Your task to perform on an android device: turn pop-ups off in chrome Image 0: 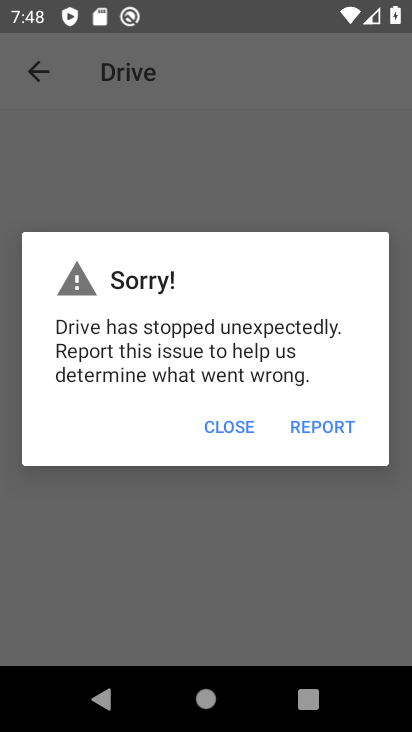
Step 0: click (235, 422)
Your task to perform on an android device: turn pop-ups off in chrome Image 1: 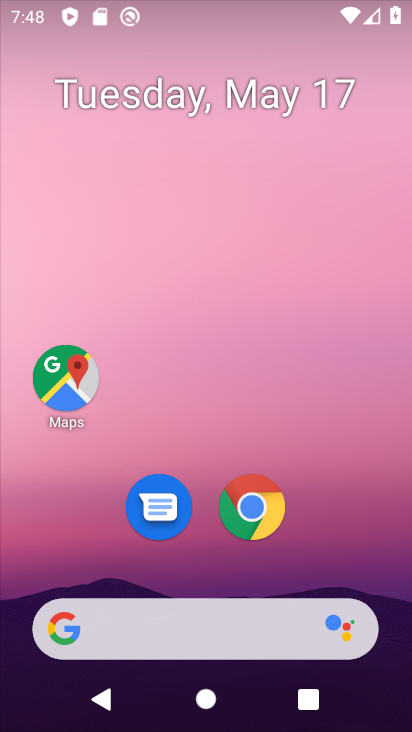
Step 1: drag from (280, 675) to (190, 34)
Your task to perform on an android device: turn pop-ups off in chrome Image 2: 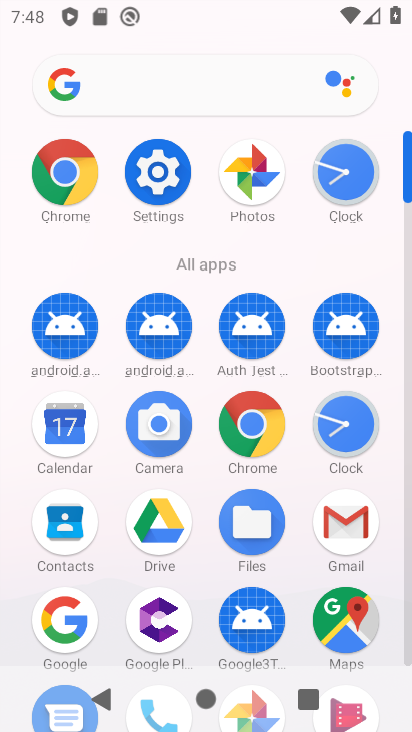
Step 2: click (69, 174)
Your task to perform on an android device: turn pop-ups off in chrome Image 3: 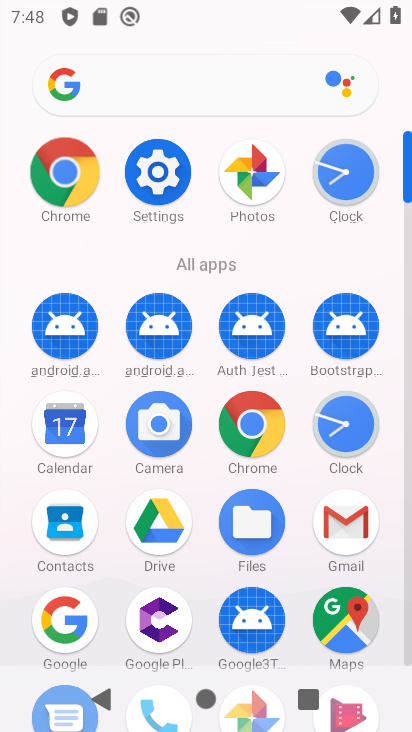
Step 3: click (69, 174)
Your task to perform on an android device: turn pop-ups off in chrome Image 4: 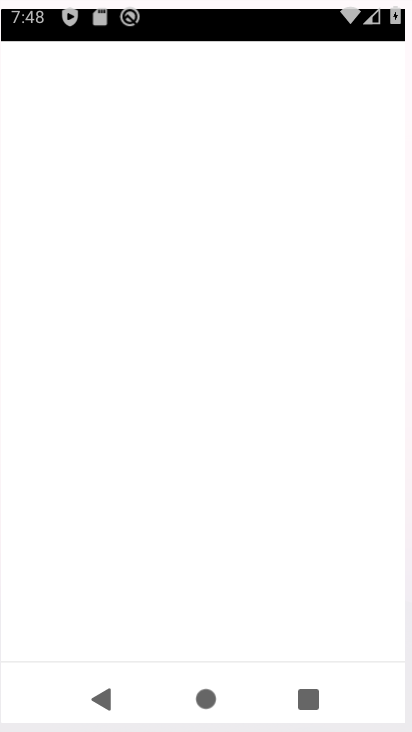
Step 4: click (69, 174)
Your task to perform on an android device: turn pop-ups off in chrome Image 5: 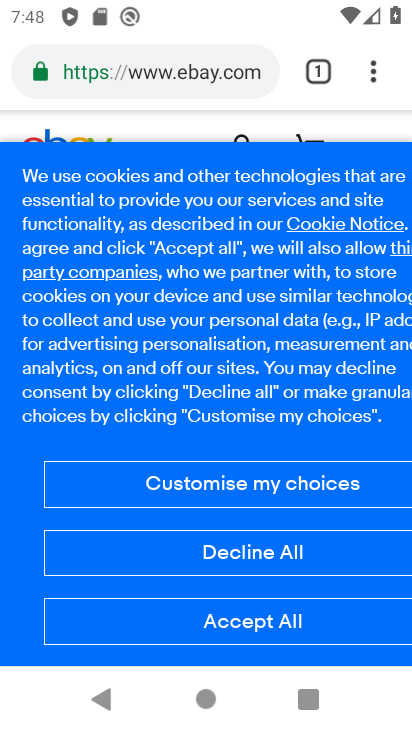
Step 5: click (363, 74)
Your task to perform on an android device: turn pop-ups off in chrome Image 6: 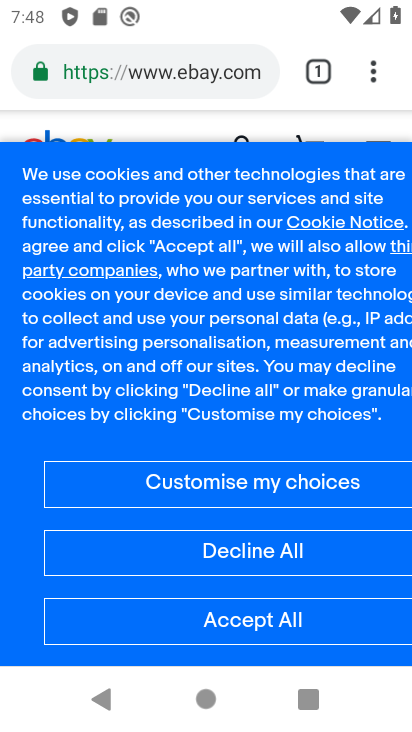
Step 6: drag from (375, 72) to (112, 497)
Your task to perform on an android device: turn pop-ups off in chrome Image 7: 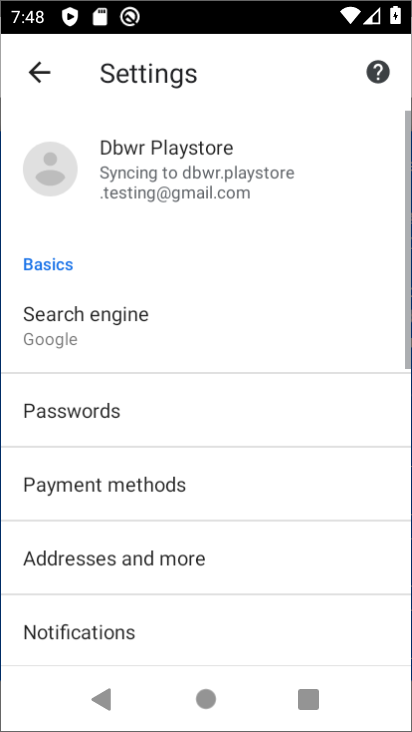
Step 7: click (112, 497)
Your task to perform on an android device: turn pop-ups off in chrome Image 8: 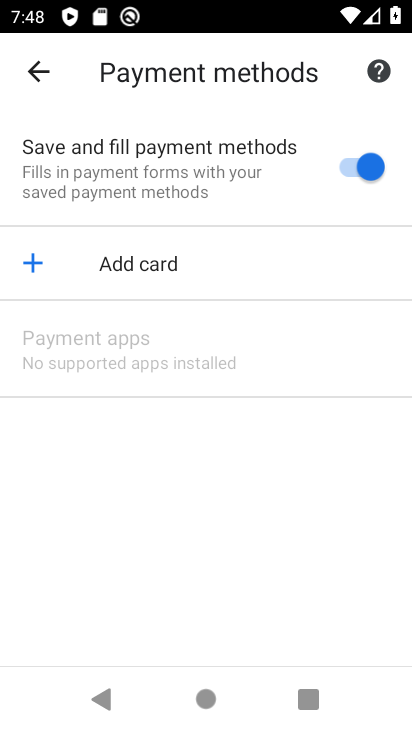
Step 8: click (34, 69)
Your task to perform on an android device: turn pop-ups off in chrome Image 9: 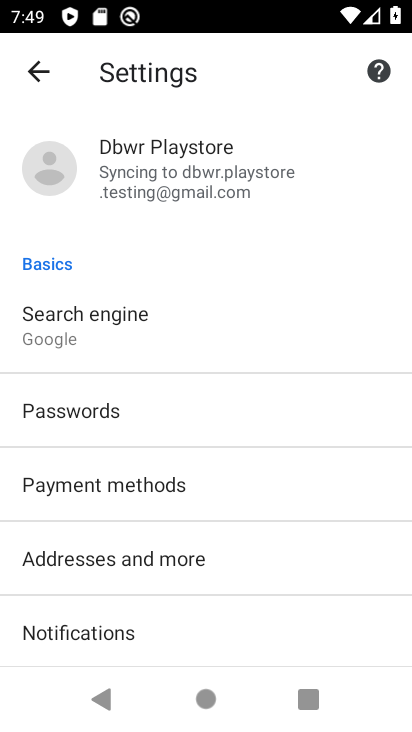
Step 9: drag from (104, 463) to (44, 102)
Your task to perform on an android device: turn pop-ups off in chrome Image 10: 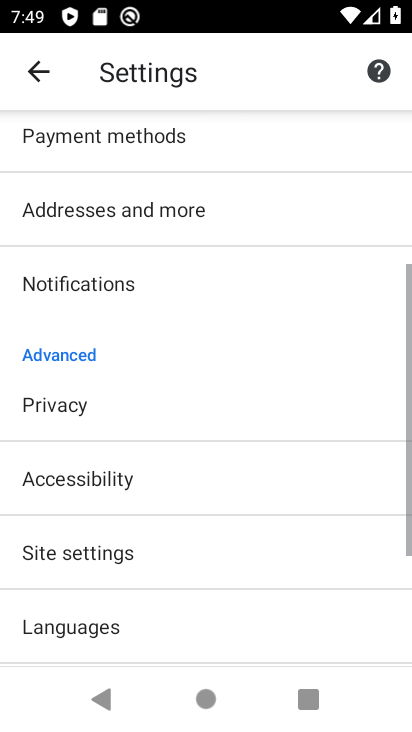
Step 10: drag from (125, 414) to (158, 62)
Your task to perform on an android device: turn pop-ups off in chrome Image 11: 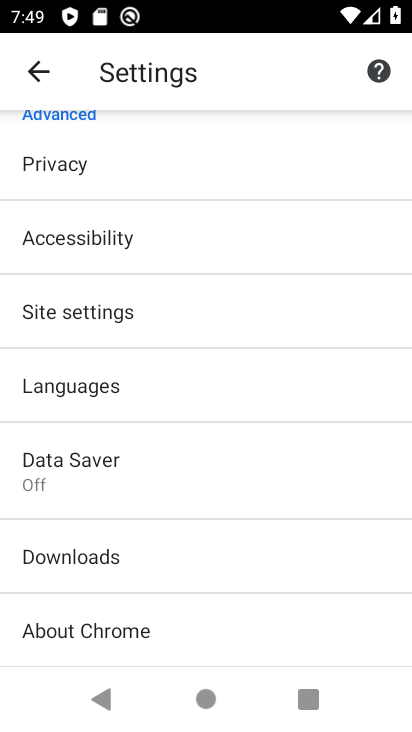
Step 11: click (68, 311)
Your task to perform on an android device: turn pop-ups off in chrome Image 12: 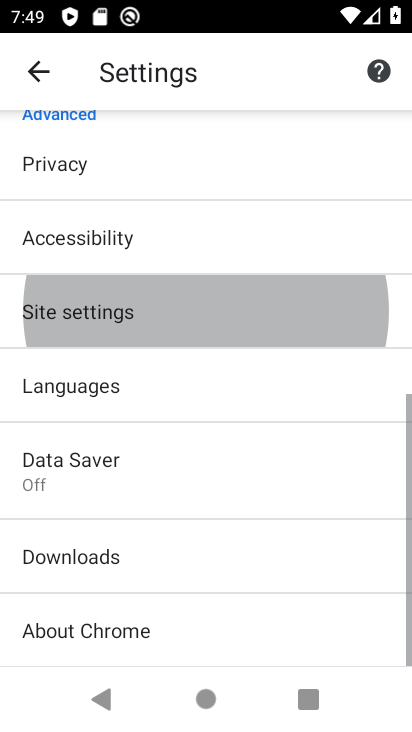
Step 12: click (72, 303)
Your task to perform on an android device: turn pop-ups off in chrome Image 13: 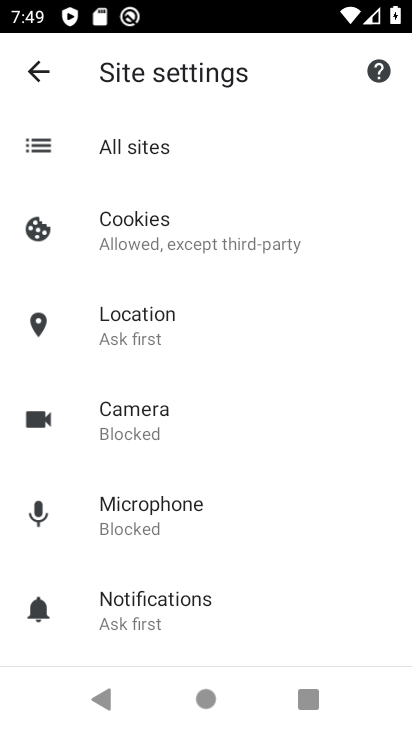
Step 13: click (112, 278)
Your task to perform on an android device: turn pop-ups off in chrome Image 14: 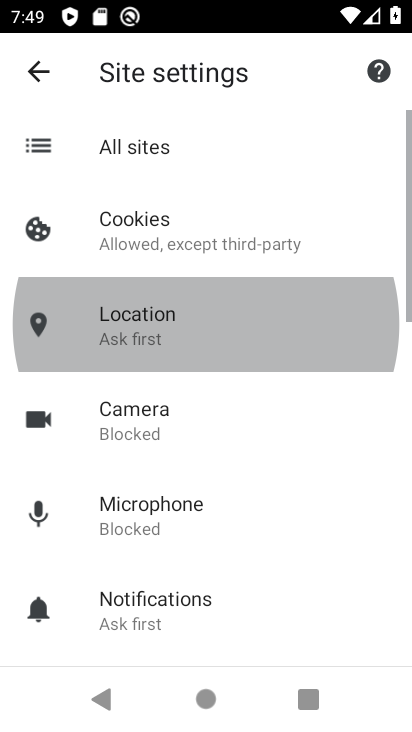
Step 14: drag from (123, 416) to (121, 66)
Your task to perform on an android device: turn pop-ups off in chrome Image 15: 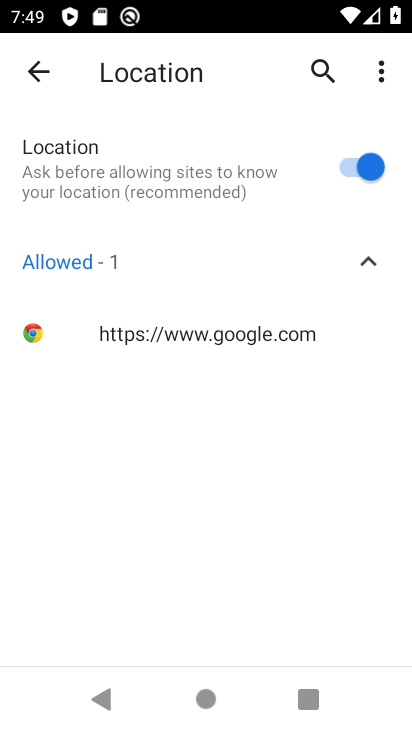
Step 15: drag from (184, 347) to (143, 154)
Your task to perform on an android device: turn pop-ups off in chrome Image 16: 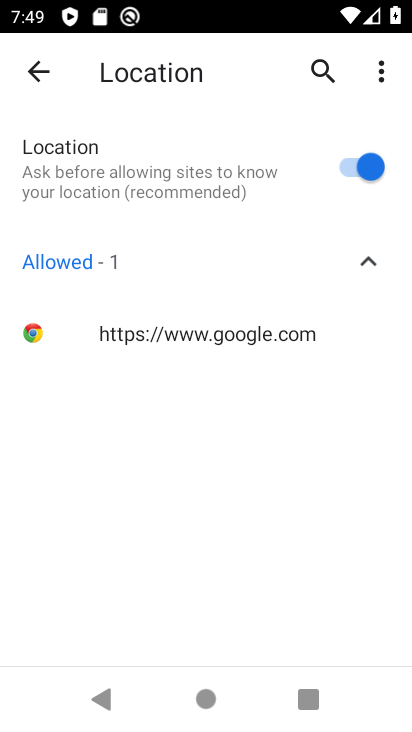
Step 16: click (36, 77)
Your task to perform on an android device: turn pop-ups off in chrome Image 17: 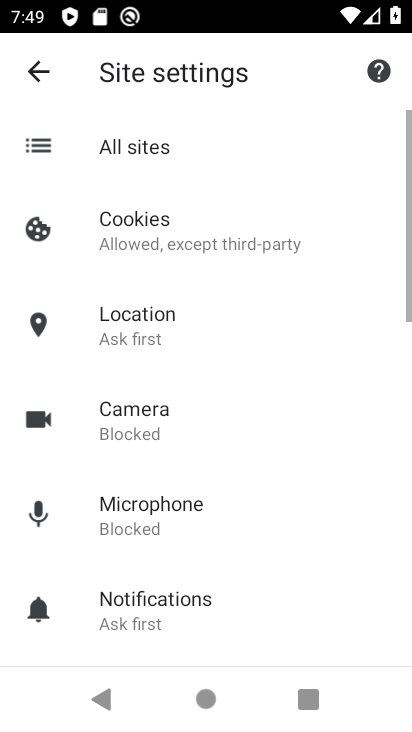
Step 17: drag from (217, 554) to (242, 1)
Your task to perform on an android device: turn pop-ups off in chrome Image 18: 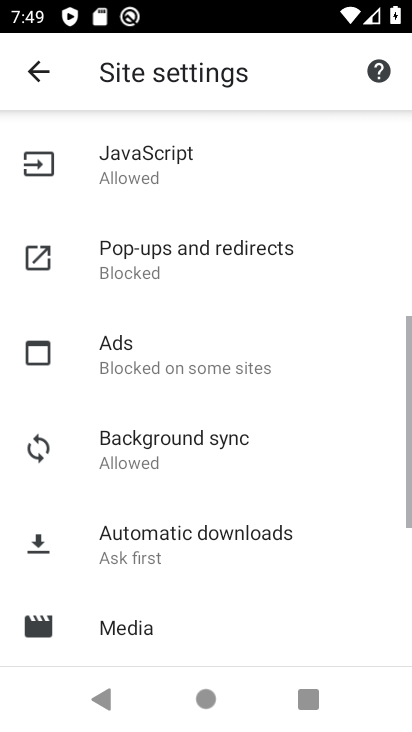
Step 18: drag from (218, 220) to (213, 2)
Your task to perform on an android device: turn pop-ups off in chrome Image 19: 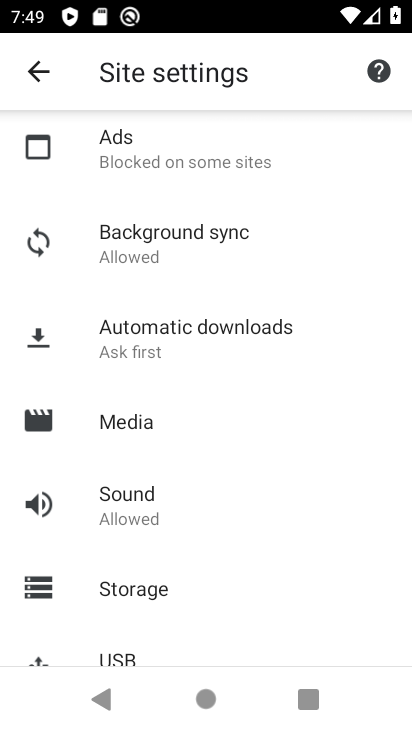
Step 19: drag from (137, 200) to (215, 715)
Your task to perform on an android device: turn pop-ups off in chrome Image 20: 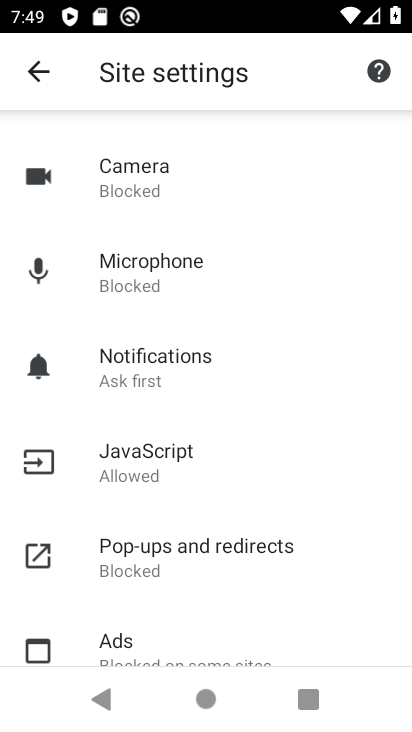
Step 20: click (156, 545)
Your task to perform on an android device: turn pop-ups off in chrome Image 21: 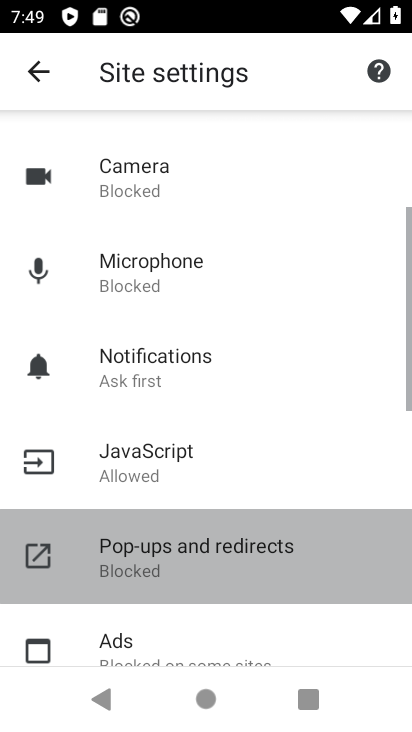
Step 21: click (158, 545)
Your task to perform on an android device: turn pop-ups off in chrome Image 22: 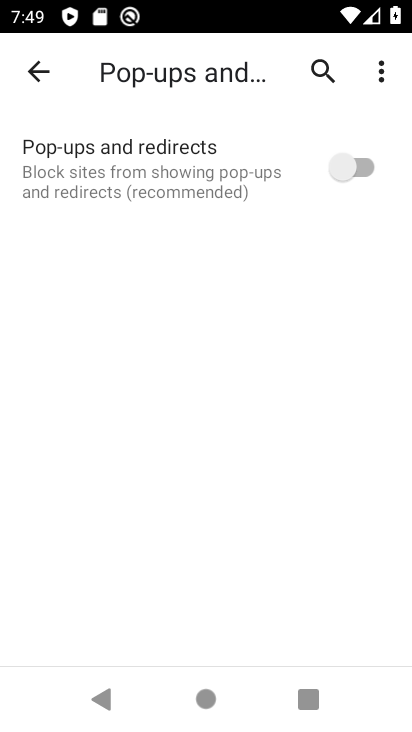
Step 22: click (335, 156)
Your task to perform on an android device: turn pop-ups off in chrome Image 23: 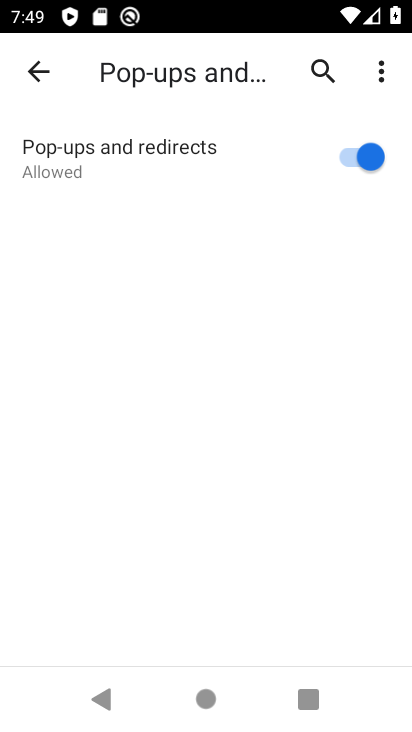
Step 23: click (370, 158)
Your task to perform on an android device: turn pop-ups off in chrome Image 24: 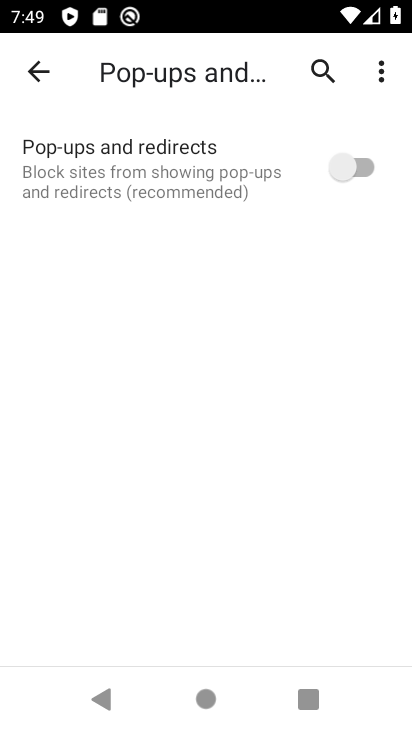
Step 24: task complete